Your task to perform on an android device: turn on data saver in the chrome app Image 0: 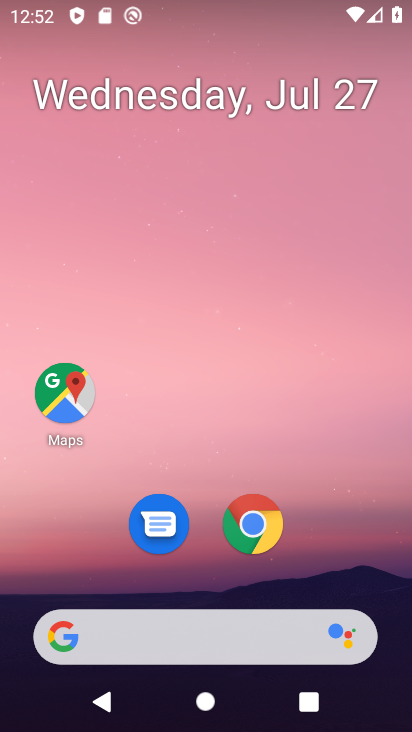
Step 0: click (268, 519)
Your task to perform on an android device: turn on data saver in the chrome app Image 1: 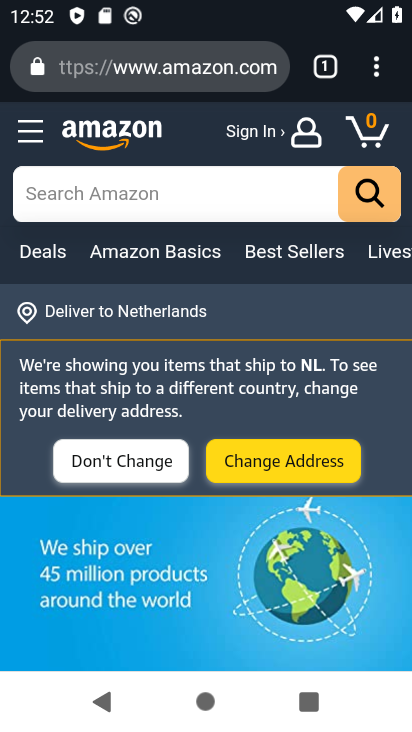
Step 1: click (376, 68)
Your task to perform on an android device: turn on data saver in the chrome app Image 2: 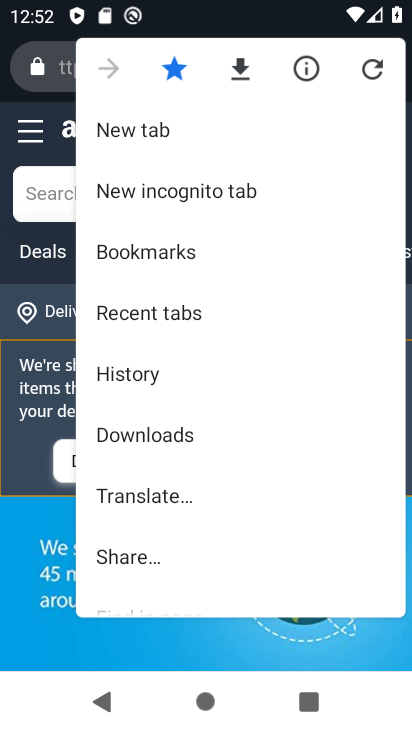
Step 2: drag from (254, 482) to (278, 61)
Your task to perform on an android device: turn on data saver in the chrome app Image 3: 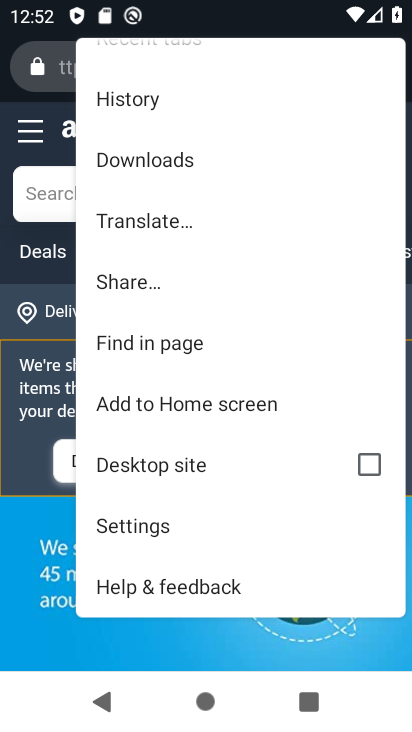
Step 3: click (157, 528)
Your task to perform on an android device: turn on data saver in the chrome app Image 4: 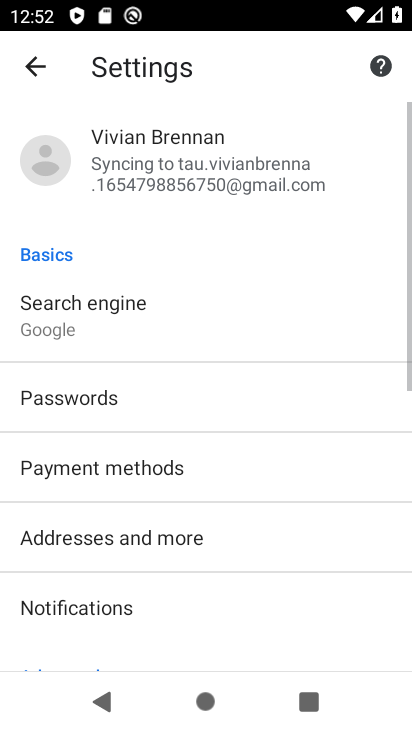
Step 4: drag from (241, 563) to (313, 48)
Your task to perform on an android device: turn on data saver in the chrome app Image 5: 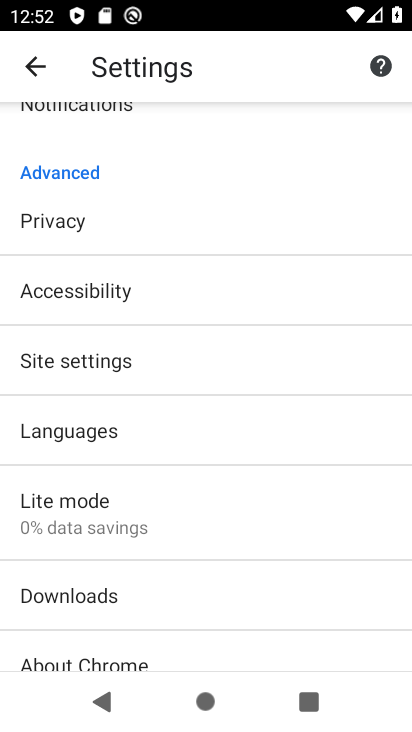
Step 5: click (152, 506)
Your task to perform on an android device: turn on data saver in the chrome app Image 6: 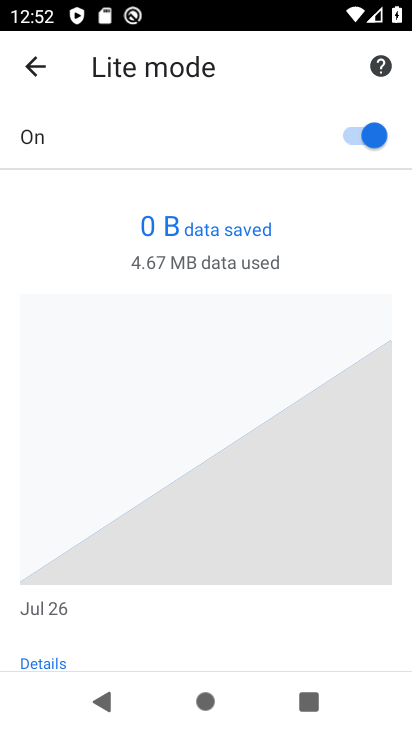
Step 6: task complete